Your task to perform on an android device: snooze an email in the gmail app Image 0: 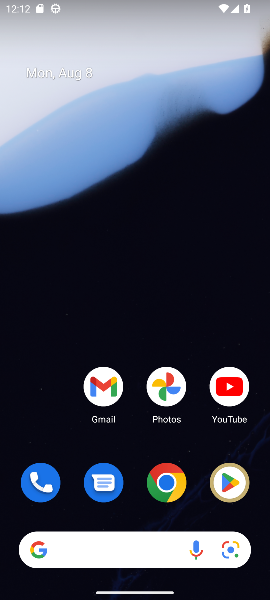
Step 0: drag from (152, 557) to (131, 272)
Your task to perform on an android device: snooze an email in the gmail app Image 1: 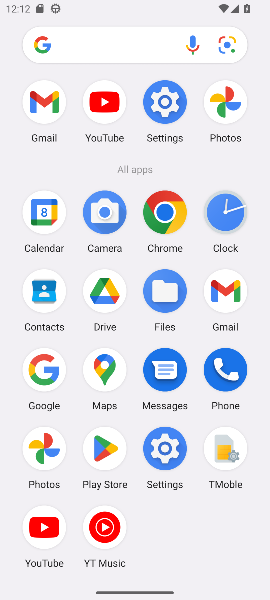
Step 1: click (228, 276)
Your task to perform on an android device: snooze an email in the gmail app Image 2: 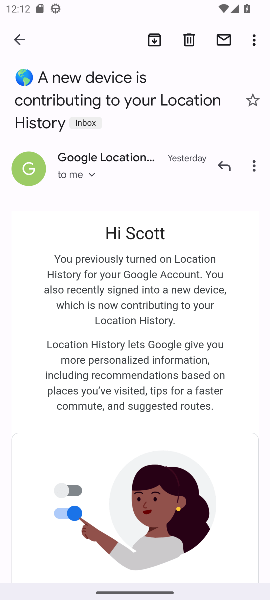
Step 2: press back button
Your task to perform on an android device: snooze an email in the gmail app Image 3: 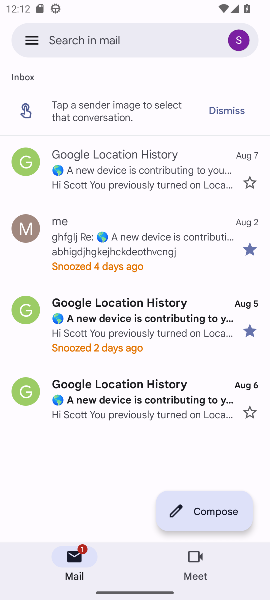
Step 3: click (38, 36)
Your task to perform on an android device: snooze an email in the gmail app Image 4: 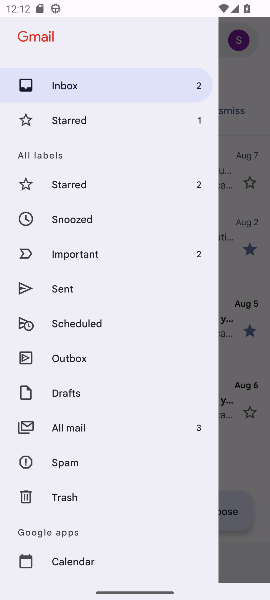
Step 4: click (85, 223)
Your task to perform on an android device: snooze an email in the gmail app Image 5: 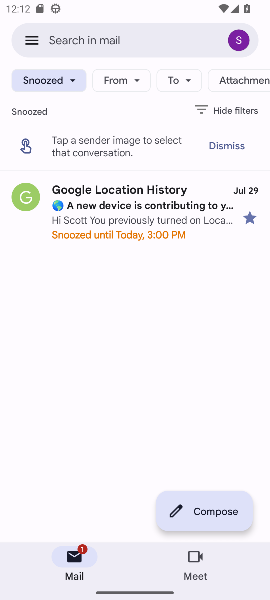
Step 5: press back button
Your task to perform on an android device: snooze an email in the gmail app Image 6: 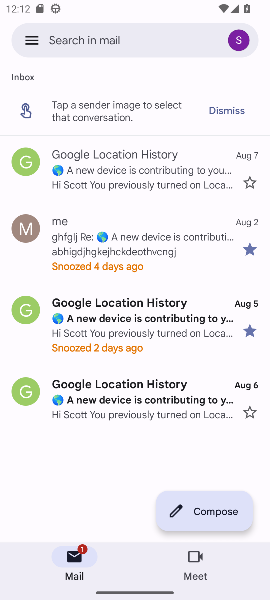
Step 6: click (169, 166)
Your task to perform on an android device: snooze an email in the gmail app Image 7: 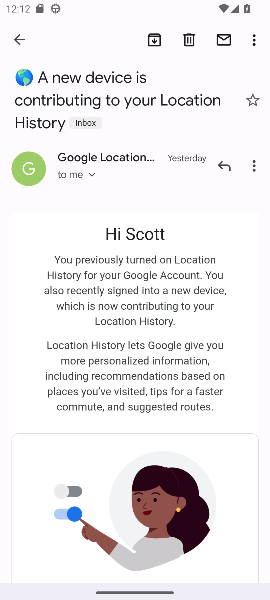
Step 7: click (252, 37)
Your task to perform on an android device: snooze an email in the gmail app Image 8: 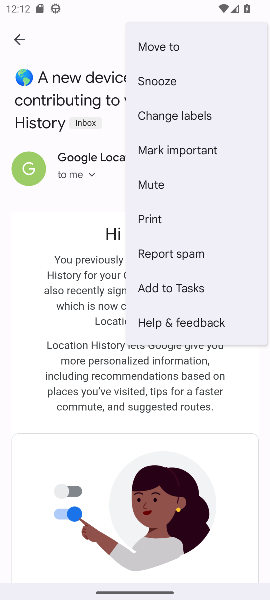
Step 8: click (167, 78)
Your task to perform on an android device: snooze an email in the gmail app Image 9: 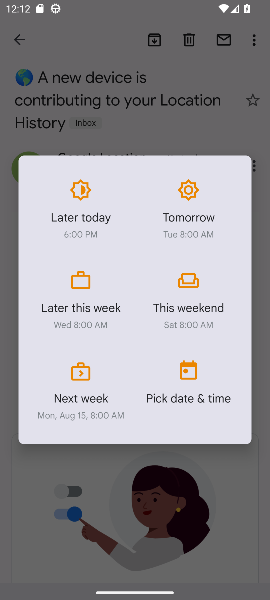
Step 9: click (194, 210)
Your task to perform on an android device: snooze an email in the gmail app Image 10: 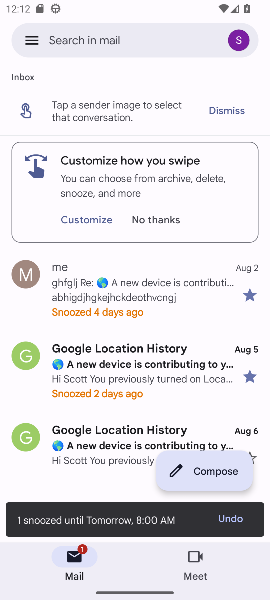
Step 10: task complete